Your task to perform on an android device: check android version Image 0: 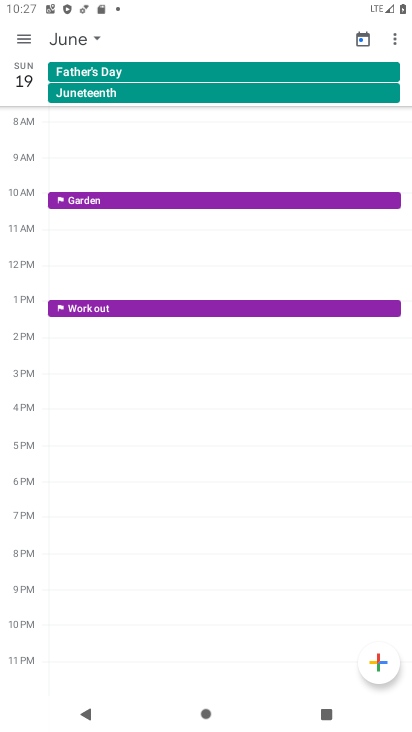
Step 0: press home button
Your task to perform on an android device: check android version Image 1: 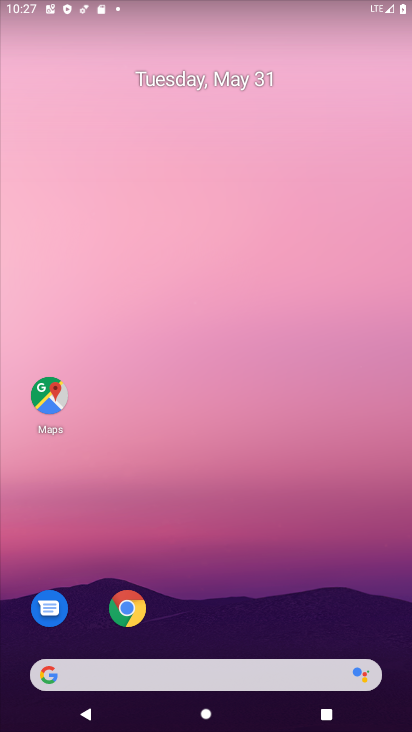
Step 1: drag from (199, 640) to (146, 21)
Your task to perform on an android device: check android version Image 2: 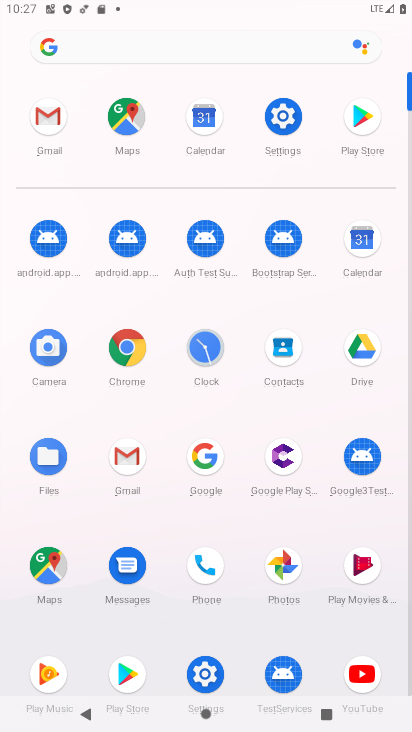
Step 2: click (284, 104)
Your task to perform on an android device: check android version Image 3: 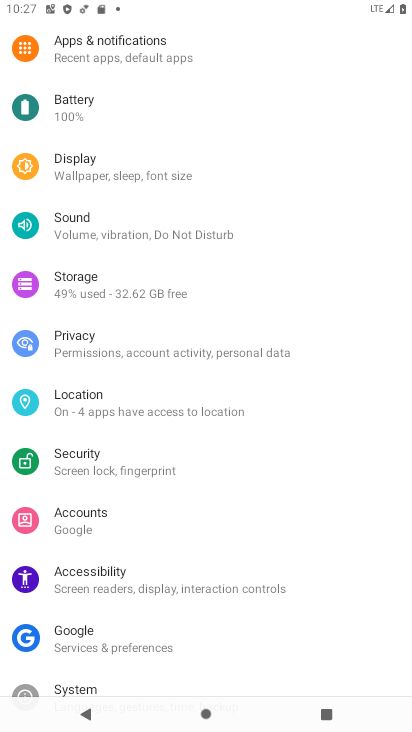
Step 3: drag from (231, 604) to (201, 49)
Your task to perform on an android device: check android version Image 4: 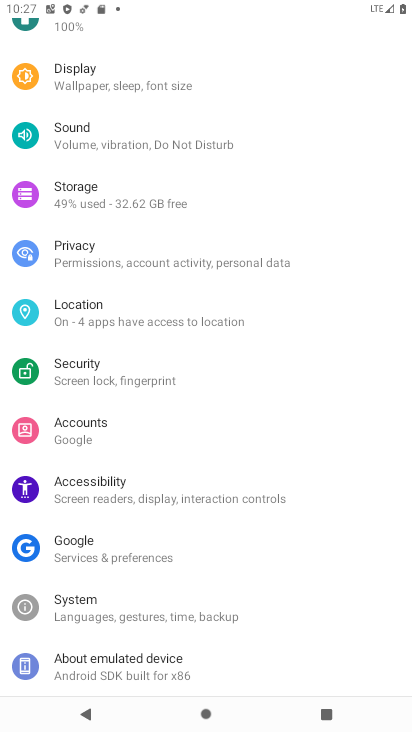
Step 4: click (132, 651)
Your task to perform on an android device: check android version Image 5: 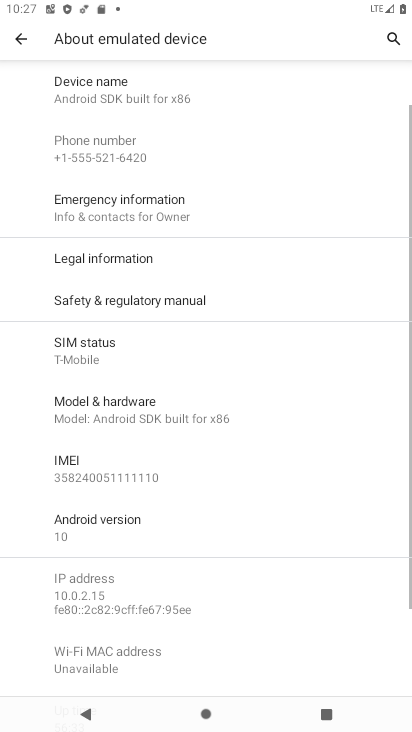
Step 5: click (137, 524)
Your task to perform on an android device: check android version Image 6: 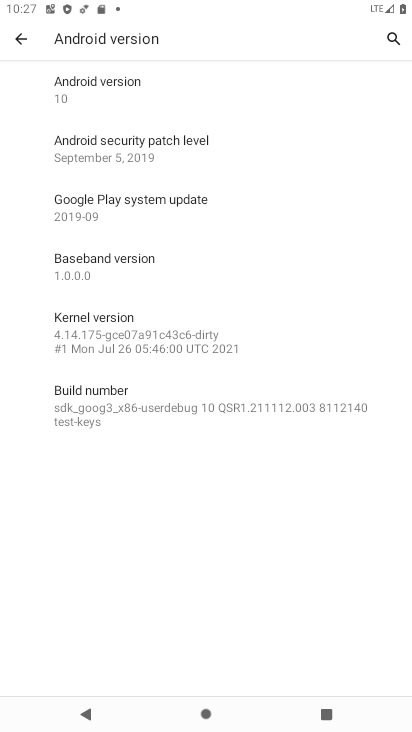
Step 6: task complete